Your task to perform on an android device: turn on translation in the chrome app Image 0: 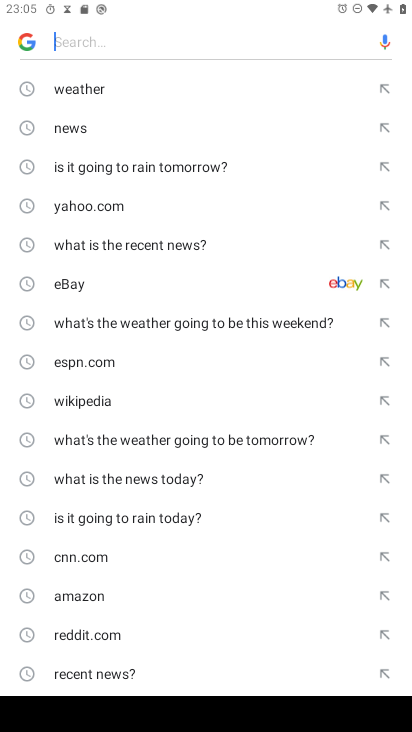
Step 0: press home button
Your task to perform on an android device: turn on translation in the chrome app Image 1: 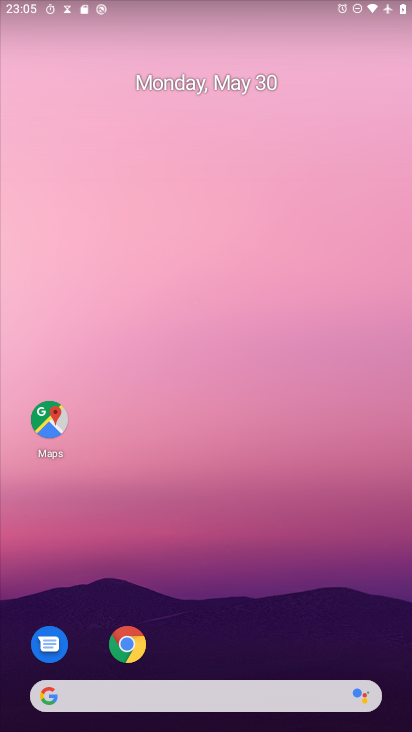
Step 1: click (131, 642)
Your task to perform on an android device: turn on translation in the chrome app Image 2: 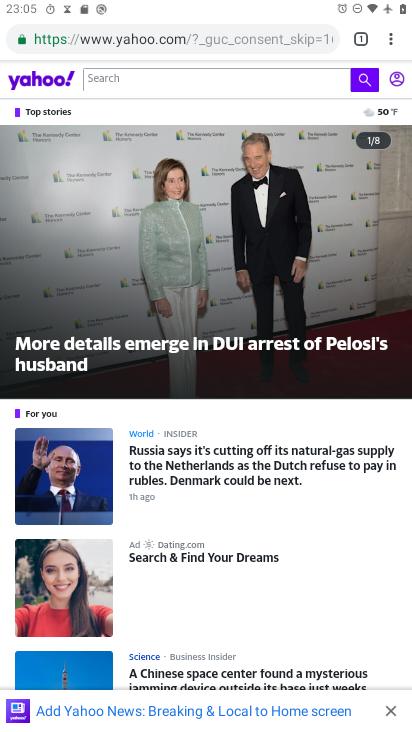
Step 2: click (386, 35)
Your task to perform on an android device: turn on translation in the chrome app Image 3: 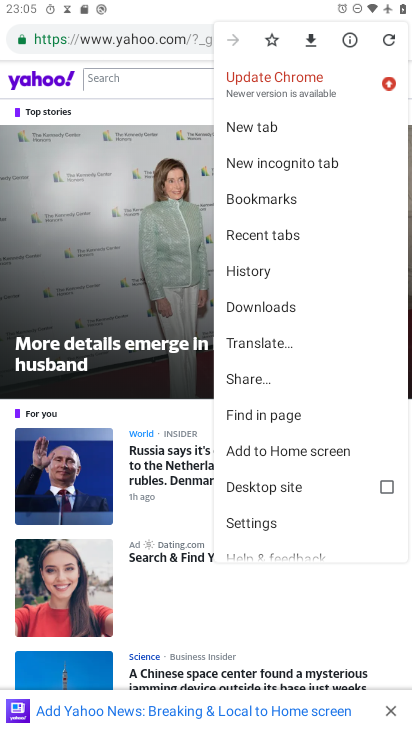
Step 3: click (267, 519)
Your task to perform on an android device: turn on translation in the chrome app Image 4: 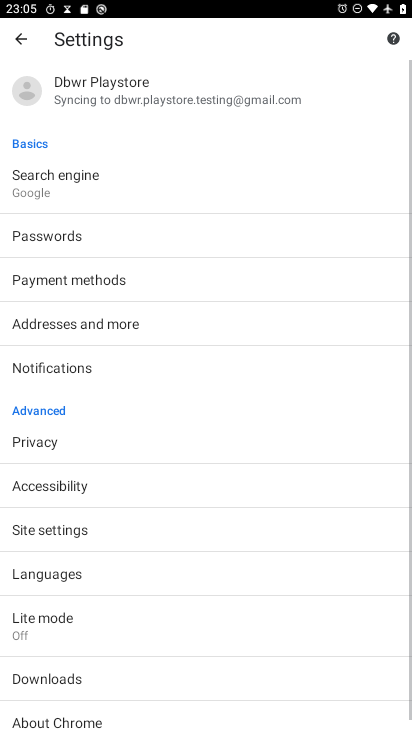
Step 4: click (65, 579)
Your task to perform on an android device: turn on translation in the chrome app Image 5: 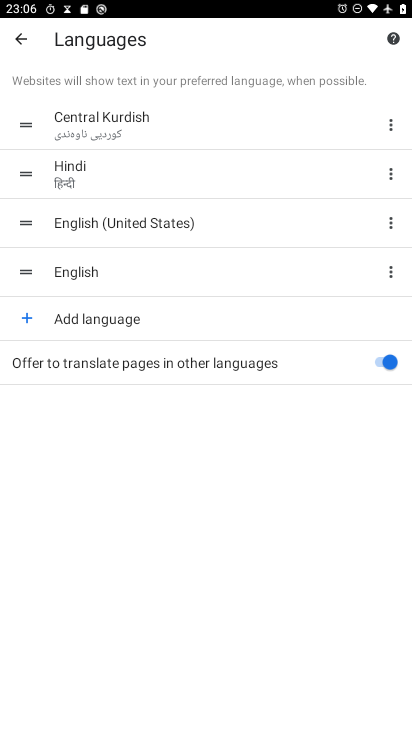
Step 5: task complete